Your task to perform on an android device: toggle sleep mode Image 0: 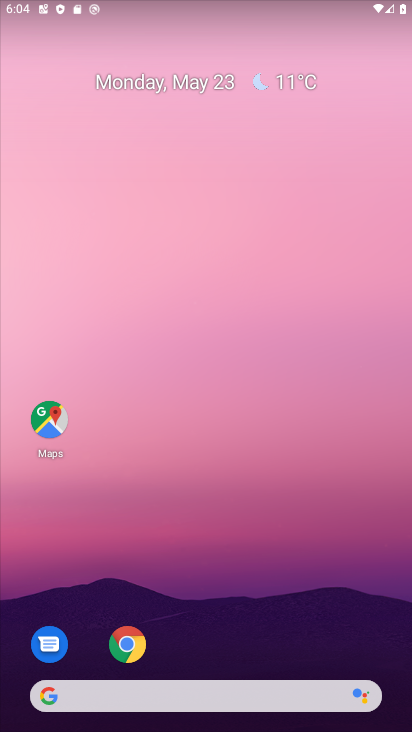
Step 0: drag from (243, 616) to (211, 238)
Your task to perform on an android device: toggle sleep mode Image 1: 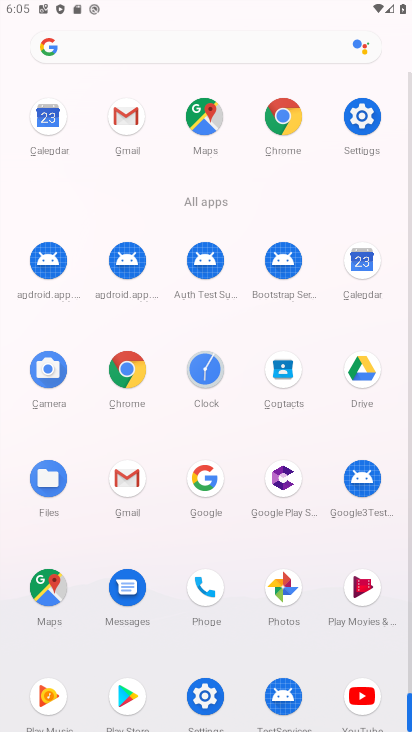
Step 1: click (356, 133)
Your task to perform on an android device: toggle sleep mode Image 2: 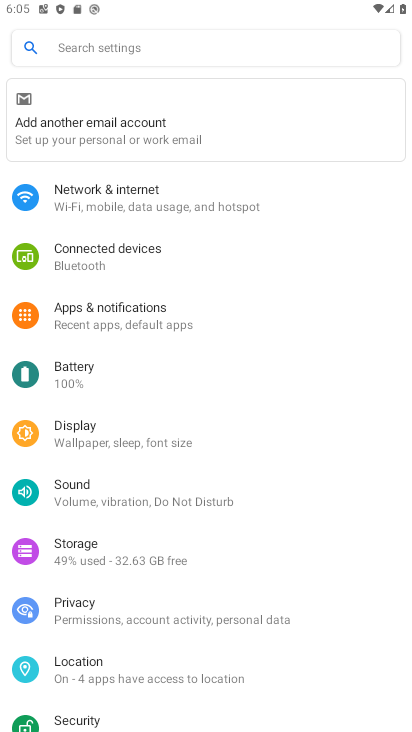
Step 2: task complete